Your task to perform on an android device: turn on translation in the chrome app Image 0: 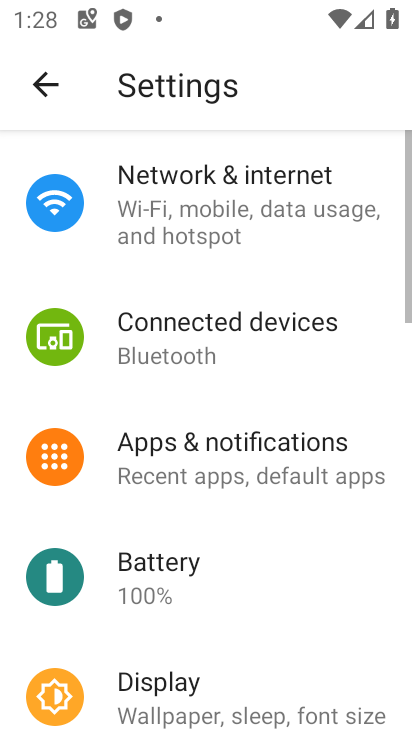
Step 0: press home button
Your task to perform on an android device: turn on translation in the chrome app Image 1: 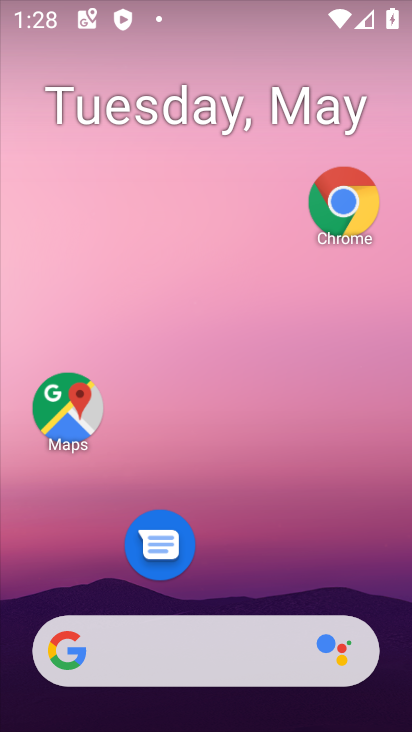
Step 1: click (325, 222)
Your task to perform on an android device: turn on translation in the chrome app Image 2: 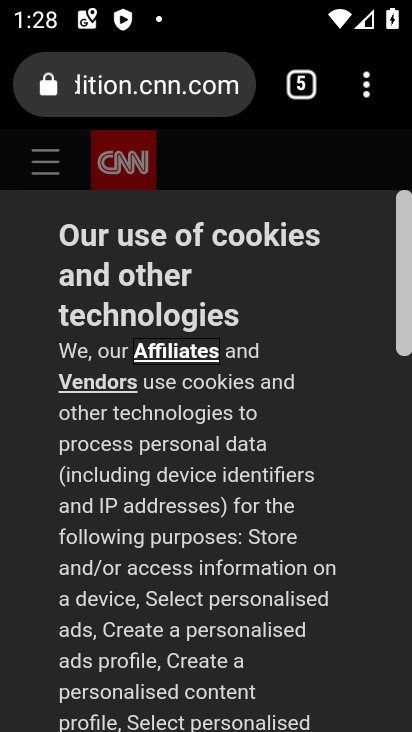
Step 2: click (371, 102)
Your task to perform on an android device: turn on translation in the chrome app Image 3: 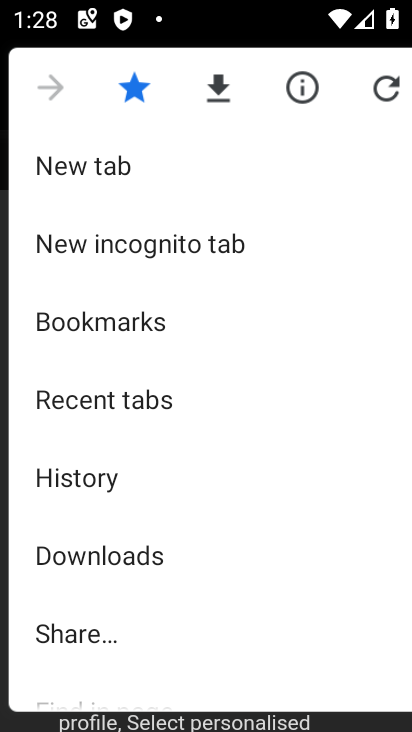
Step 3: drag from (128, 607) to (195, 284)
Your task to perform on an android device: turn on translation in the chrome app Image 4: 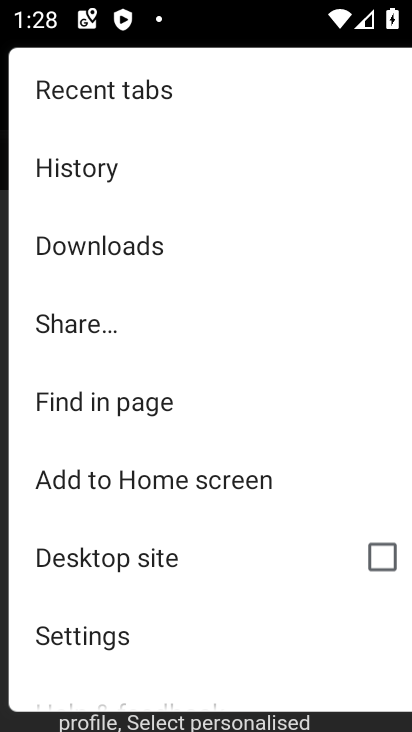
Step 4: click (76, 659)
Your task to perform on an android device: turn on translation in the chrome app Image 5: 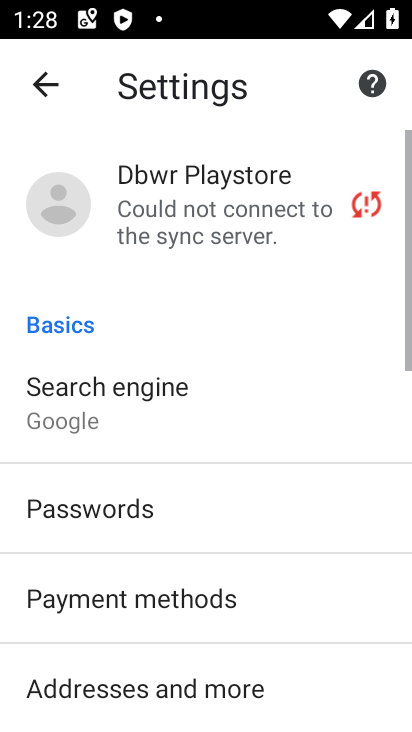
Step 5: drag from (76, 659) to (217, 128)
Your task to perform on an android device: turn on translation in the chrome app Image 6: 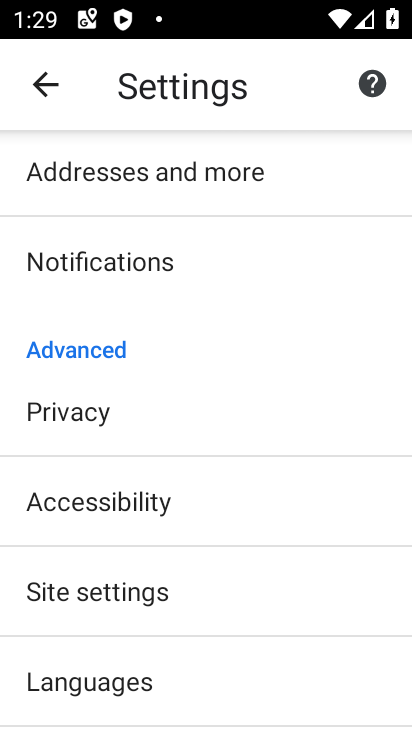
Step 6: click (90, 670)
Your task to perform on an android device: turn on translation in the chrome app Image 7: 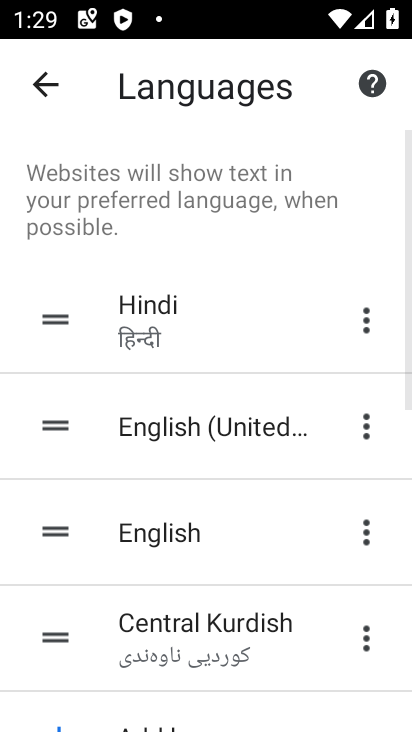
Step 7: task complete